Your task to perform on an android device: What's the price of the new iPhone on eBay? Image 0: 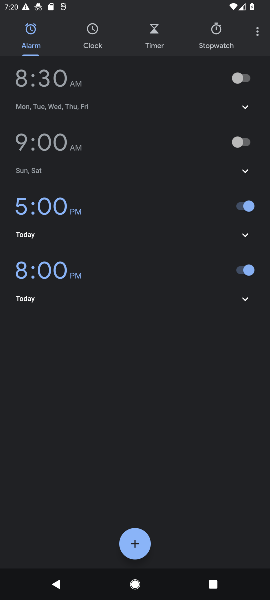
Step 0: press home button
Your task to perform on an android device: What's the price of the new iPhone on eBay? Image 1: 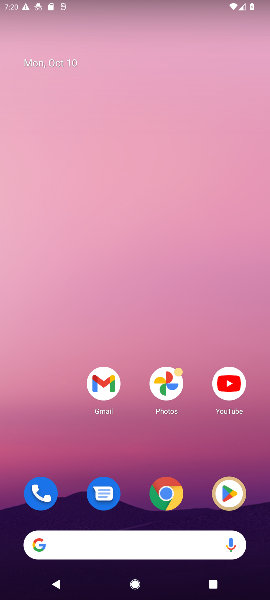
Step 1: drag from (128, 500) to (105, 259)
Your task to perform on an android device: What's the price of the new iPhone on eBay? Image 2: 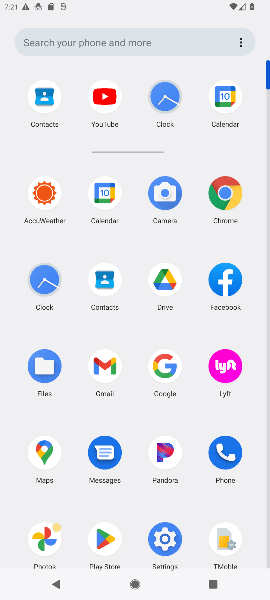
Step 2: click (162, 365)
Your task to perform on an android device: What's the price of the new iPhone on eBay? Image 3: 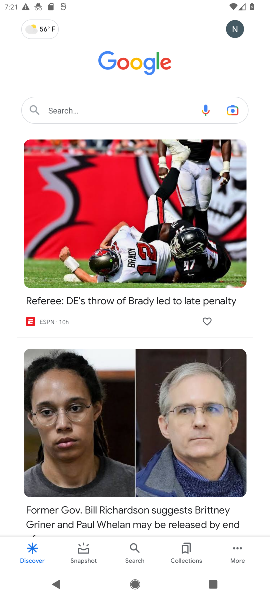
Step 3: click (99, 104)
Your task to perform on an android device: What's the price of the new iPhone on eBay? Image 4: 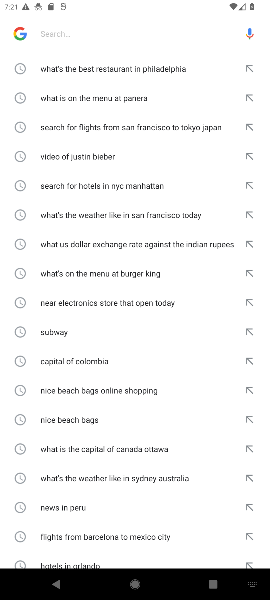
Step 4: type "What's the price of the new iPhone on eBay"
Your task to perform on an android device: What's the price of the new iPhone on eBay? Image 5: 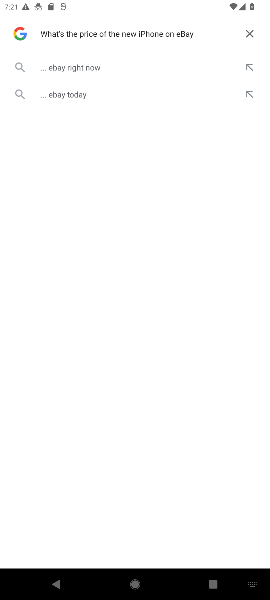
Step 5: click (65, 96)
Your task to perform on an android device: What's the price of the new iPhone on eBay? Image 6: 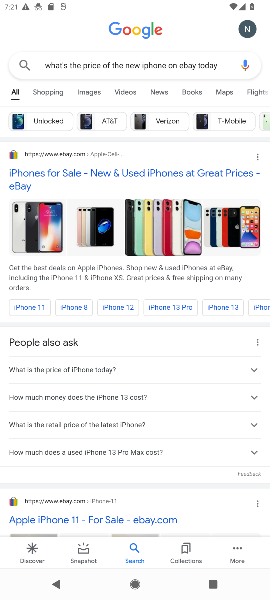
Step 6: task complete